Your task to perform on an android device: open a bookmark in the chrome app Image 0: 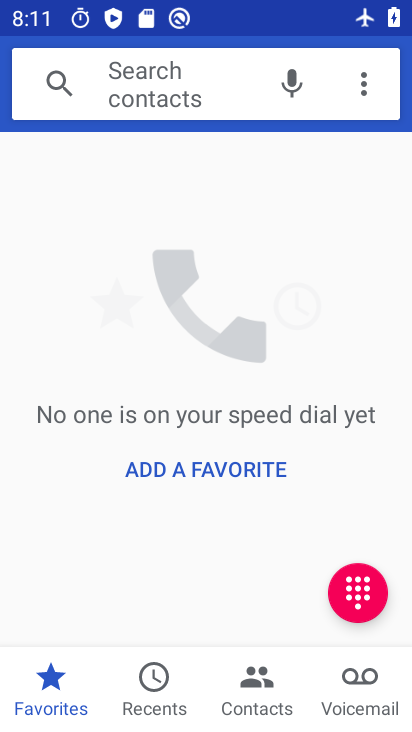
Step 0: press back button
Your task to perform on an android device: open a bookmark in the chrome app Image 1: 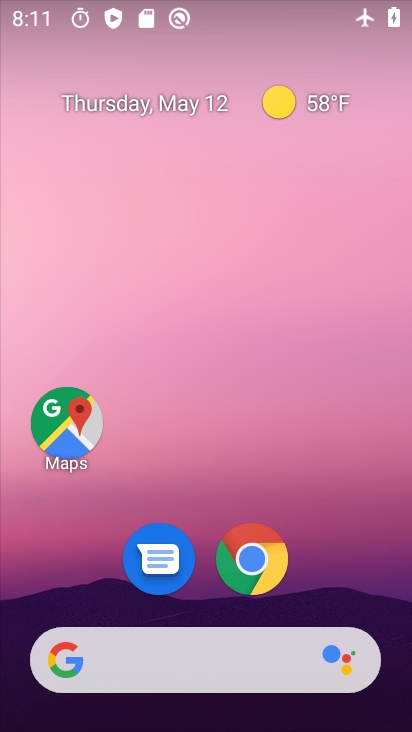
Step 1: click (252, 561)
Your task to perform on an android device: open a bookmark in the chrome app Image 2: 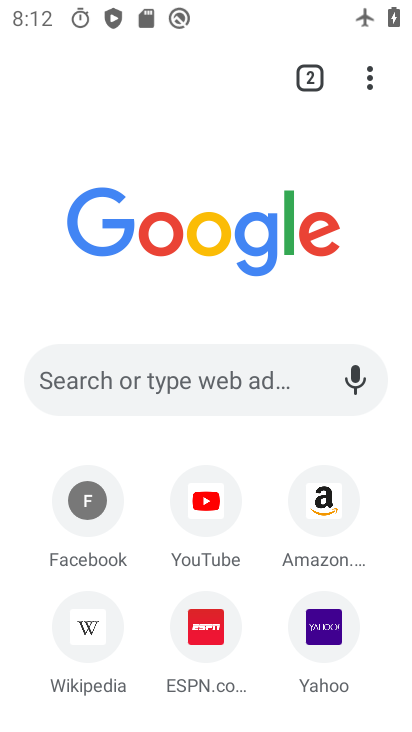
Step 2: click (370, 82)
Your task to perform on an android device: open a bookmark in the chrome app Image 3: 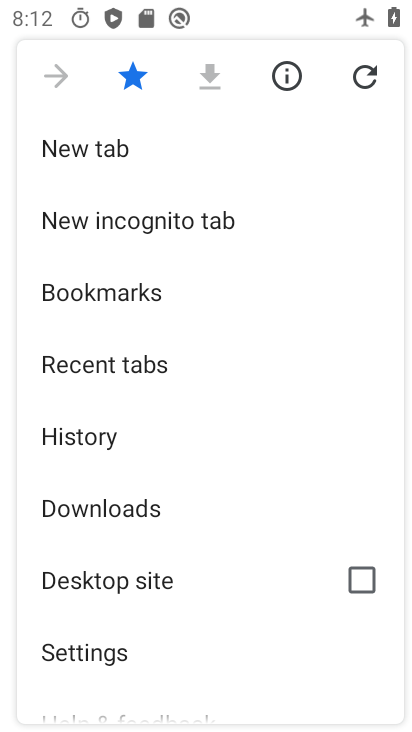
Step 3: click (138, 296)
Your task to perform on an android device: open a bookmark in the chrome app Image 4: 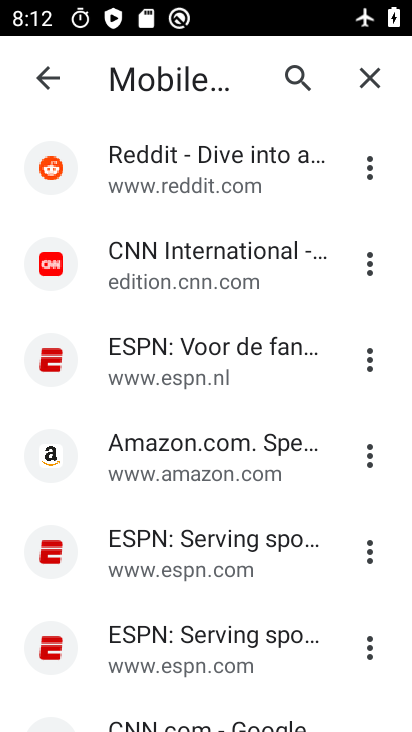
Step 4: task complete